Your task to perform on an android device: Go to settings Image 0: 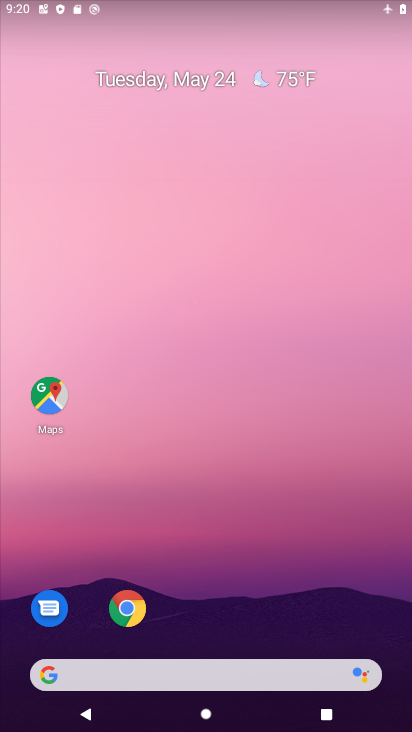
Step 0: drag from (289, 583) to (224, 20)
Your task to perform on an android device: Go to settings Image 1: 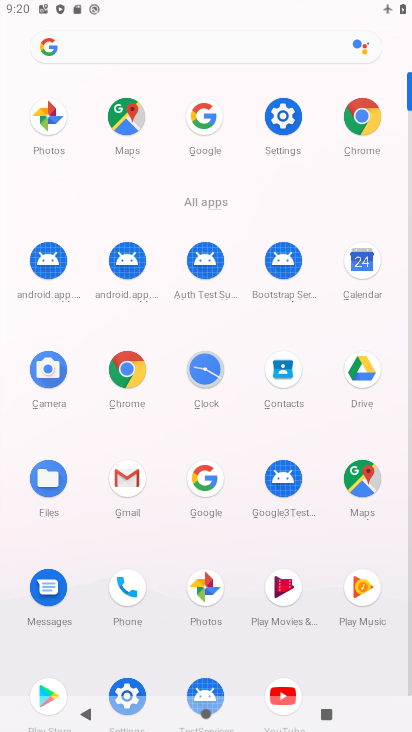
Step 1: click (288, 121)
Your task to perform on an android device: Go to settings Image 2: 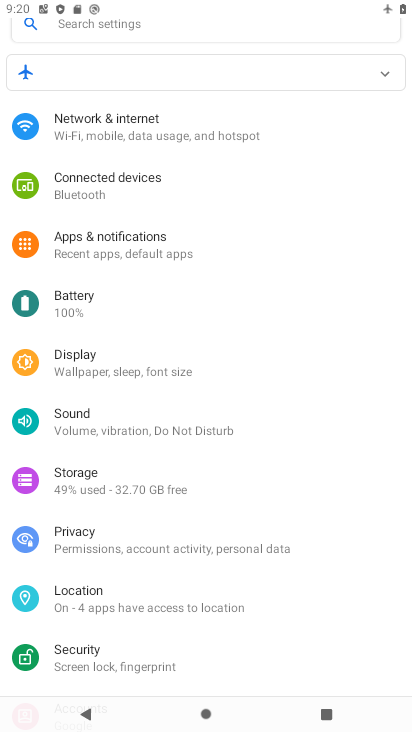
Step 2: task complete